Your task to perform on an android device: Show me productivity apps on the Play Store Image 0: 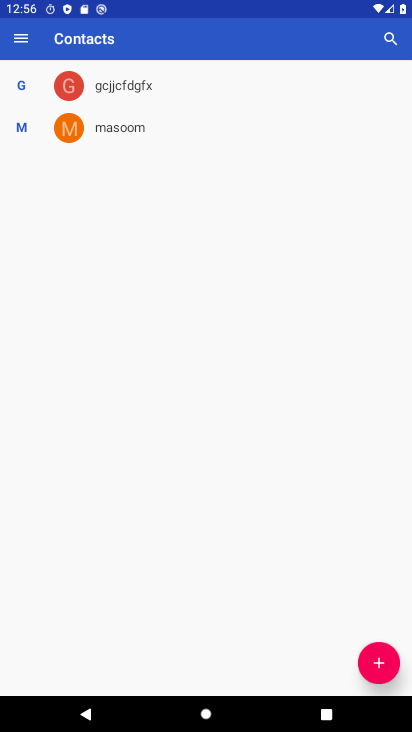
Step 0: press home button
Your task to perform on an android device: Show me productivity apps on the Play Store Image 1: 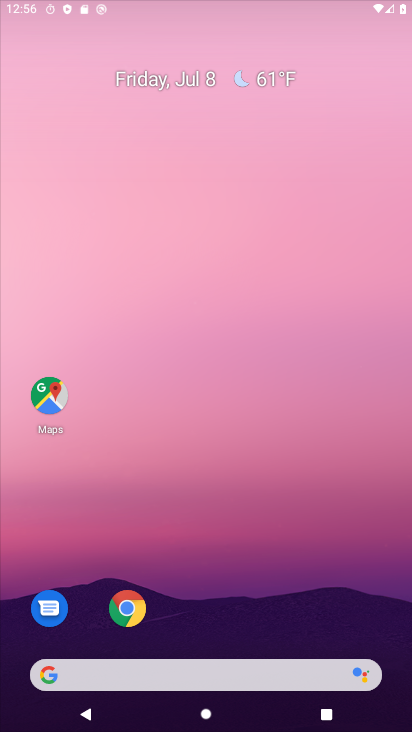
Step 1: drag from (208, 640) to (248, 120)
Your task to perform on an android device: Show me productivity apps on the Play Store Image 2: 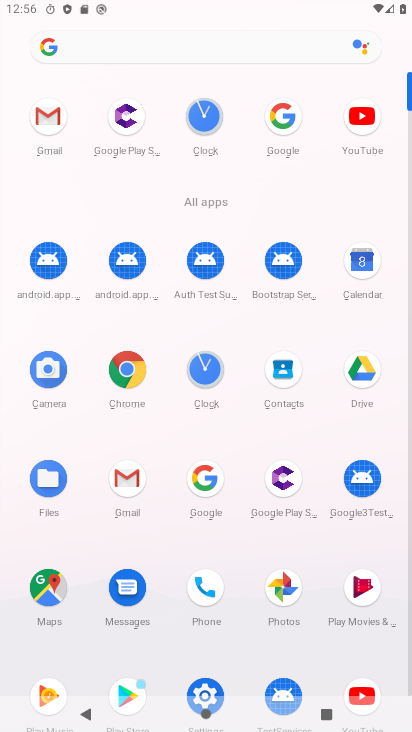
Step 2: drag from (130, 660) to (158, 396)
Your task to perform on an android device: Show me productivity apps on the Play Store Image 3: 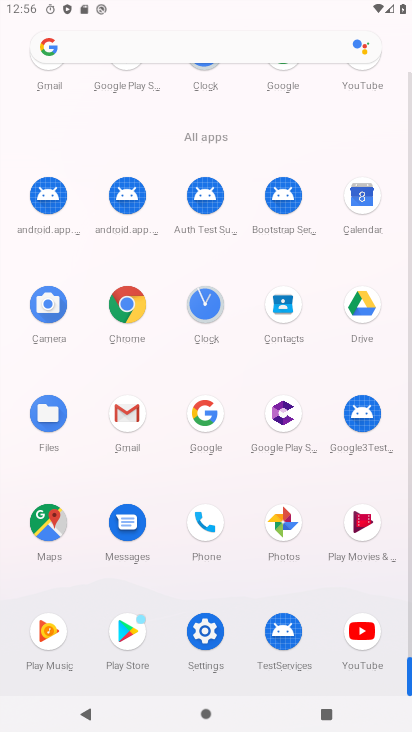
Step 3: click (131, 629)
Your task to perform on an android device: Show me productivity apps on the Play Store Image 4: 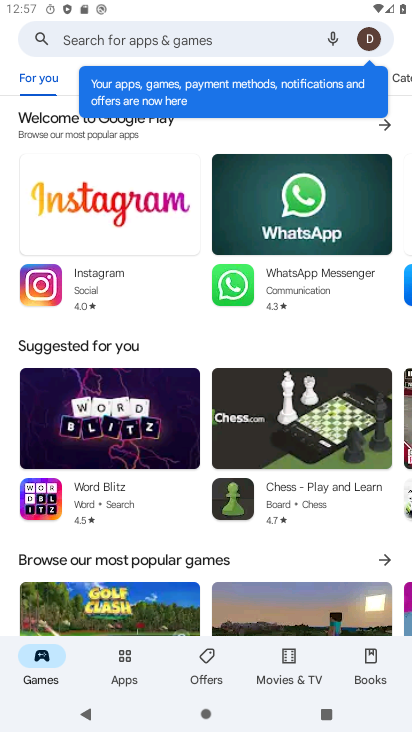
Step 4: click (125, 665)
Your task to perform on an android device: Show me productivity apps on the Play Store Image 5: 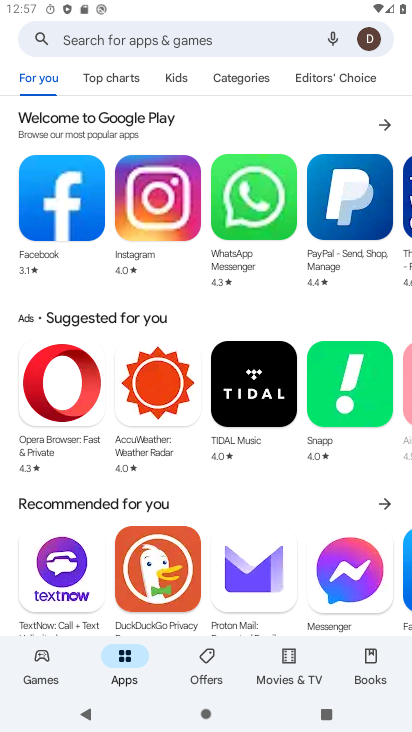
Step 5: click (260, 82)
Your task to perform on an android device: Show me productivity apps on the Play Store Image 6: 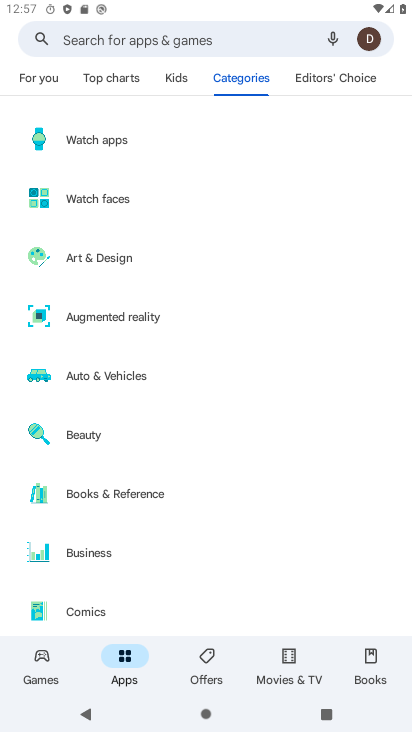
Step 6: drag from (252, 546) to (277, 175)
Your task to perform on an android device: Show me productivity apps on the Play Store Image 7: 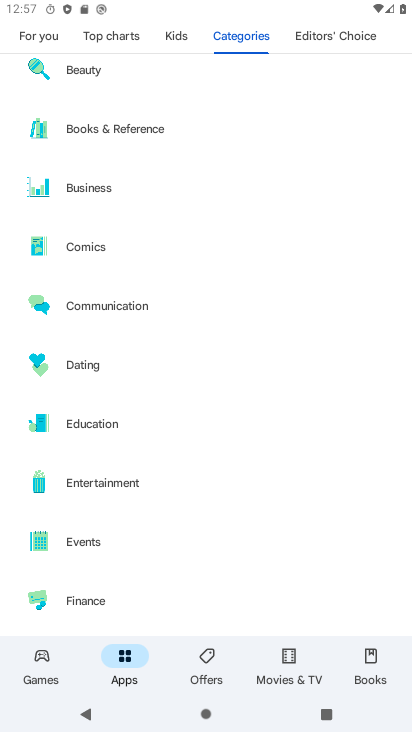
Step 7: drag from (236, 575) to (200, 61)
Your task to perform on an android device: Show me productivity apps on the Play Store Image 8: 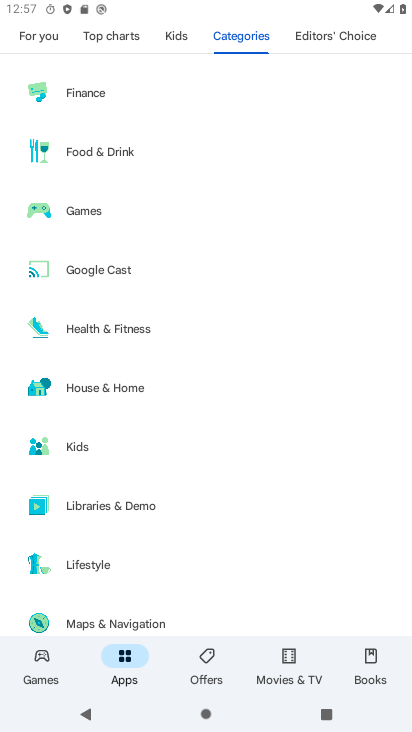
Step 8: drag from (197, 542) to (243, 86)
Your task to perform on an android device: Show me productivity apps on the Play Store Image 9: 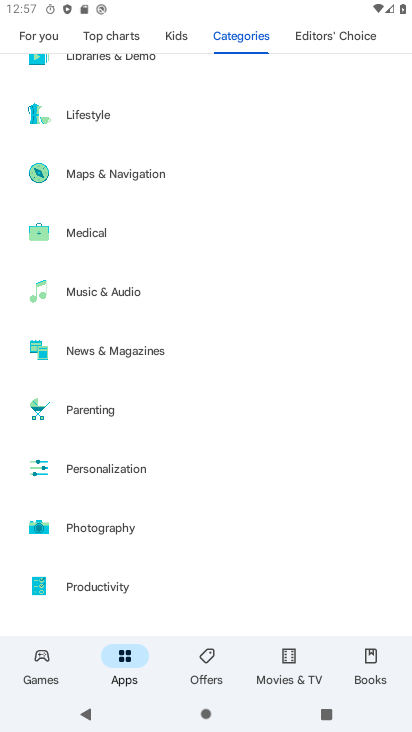
Step 9: drag from (184, 565) to (175, 279)
Your task to perform on an android device: Show me productivity apps on the Play Store Image 10: 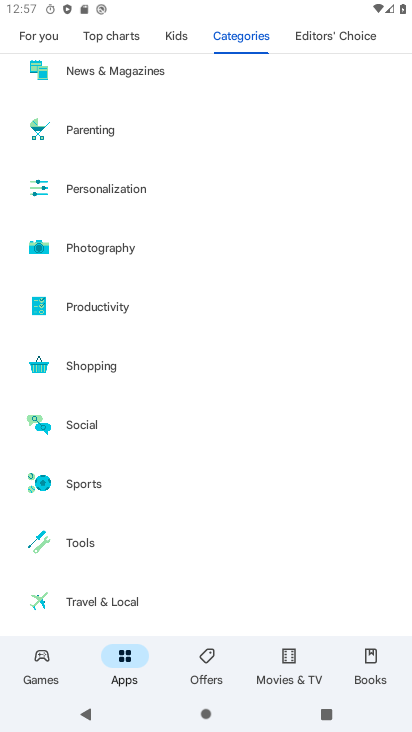
Step 10: click (94, 300)
Your task to perform on an android device: Show me productivity apps on the Play Store Image 11: 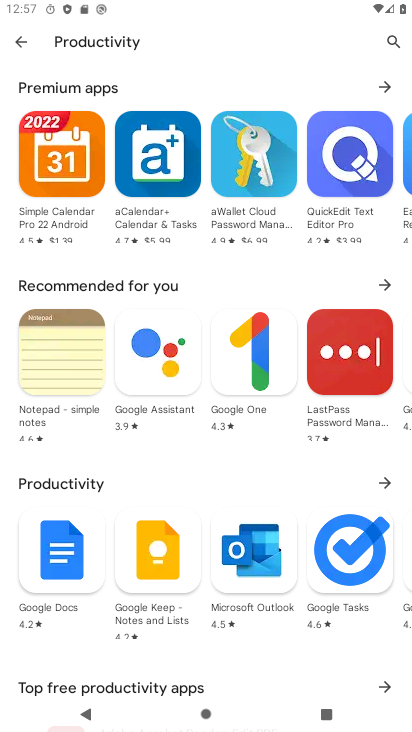
Step 11: task complete